Your task to perform on an android device: Open Yahoo.com Image 0: 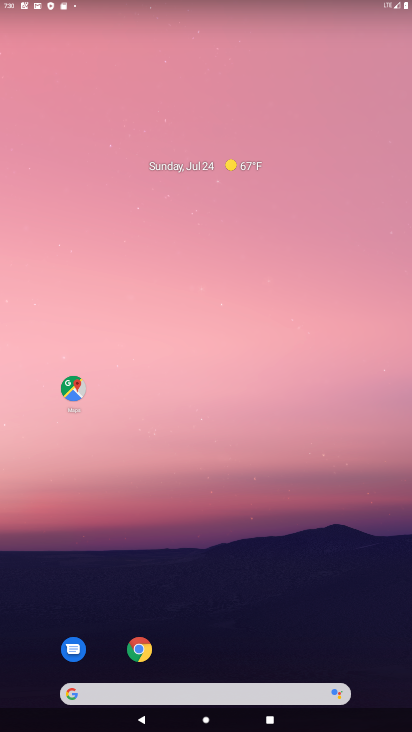
Step 0: click (141, 653)
Your task to perform on an android device: Open Yahoo.com Image 1: 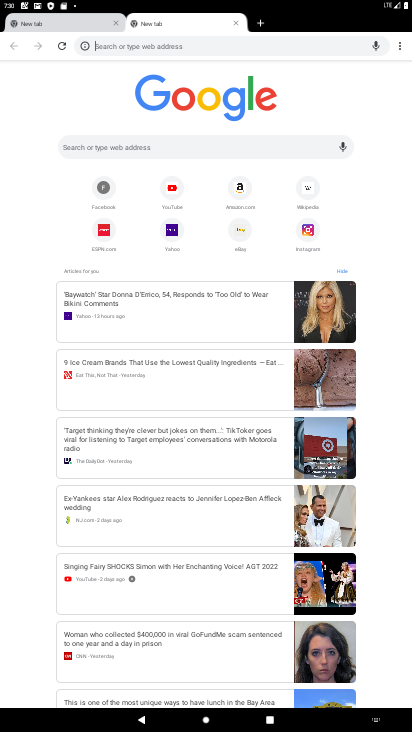
Step 1: click (172, 237)
Your task to perform on an android device: Open Yahoo.com Image 2: 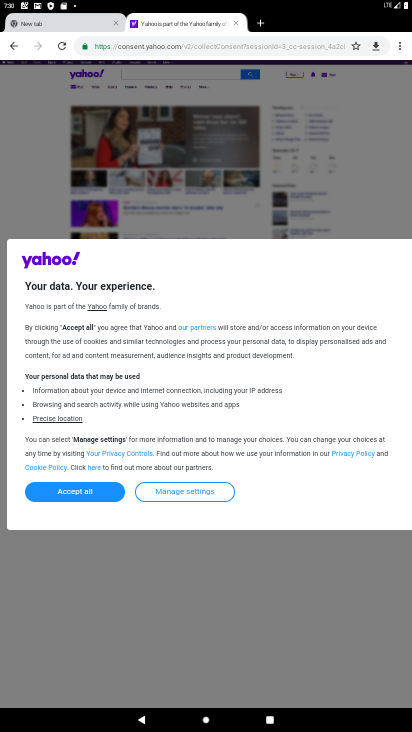
Step 2: click (49, 485)
Your task to perform on an android device: Open Yahoo.com Image 3: 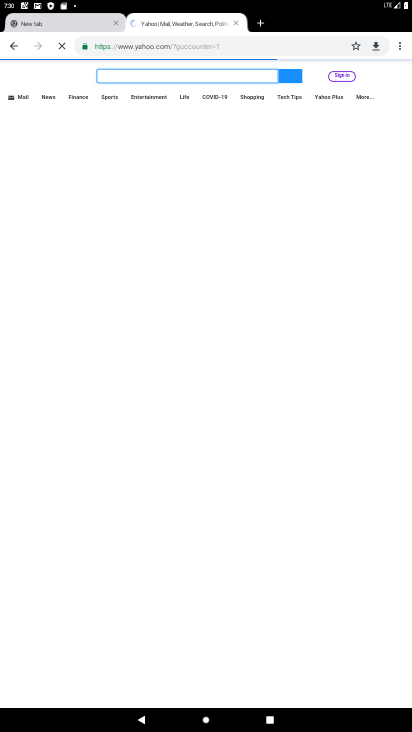
Step 3: click (49, 485)
Your task to perform on an android device: Open Yahoo.com Image 4: 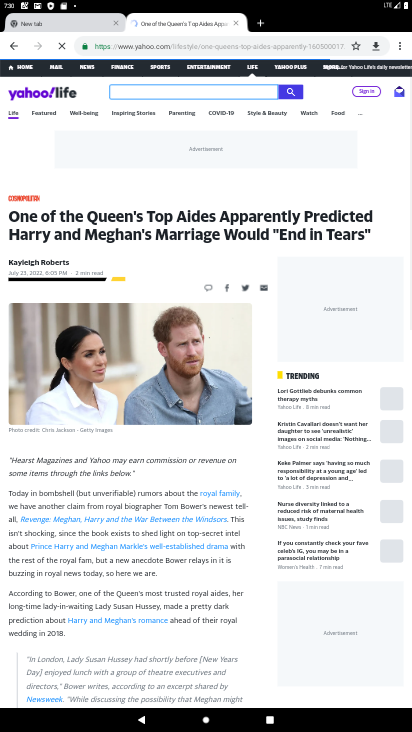
Step 4: task complete